Your task to perform on an android device: Open settings Image 0: 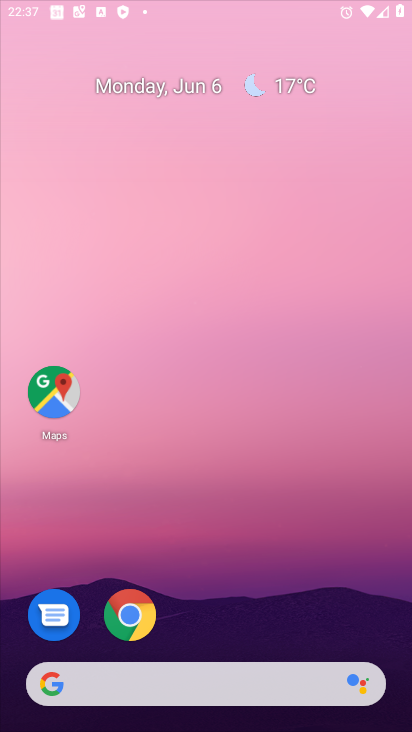
Step 0: drag from (17, 312) to (402, 296)
Your task to perform on an android device: Open settings Image 1: 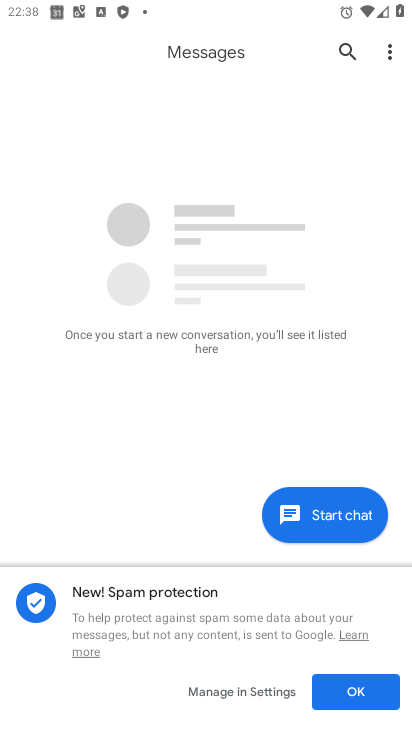
Step 1: press home button
Your task to perform on an android device: Open settings Image 2: 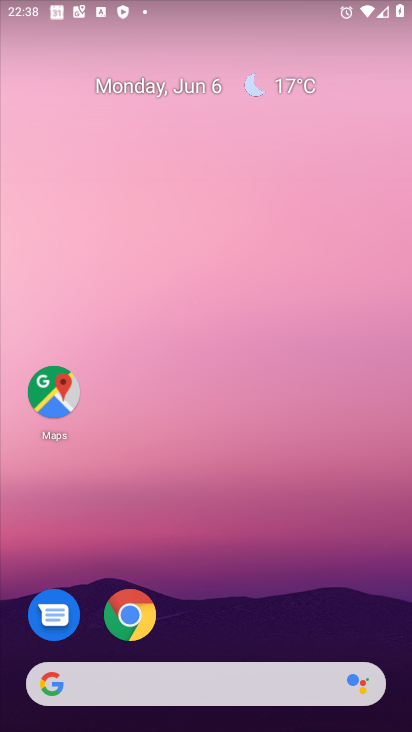
Step 2: drag from (402, 709) to (319, 52)
Your task to perform on an android device: Open settings Image 3: 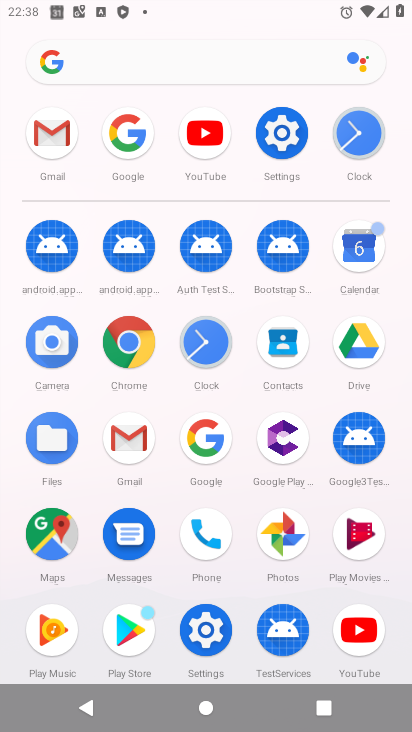
Step 3: click (266, 123)
Your task to perform on an android device: Open settings Image 4: 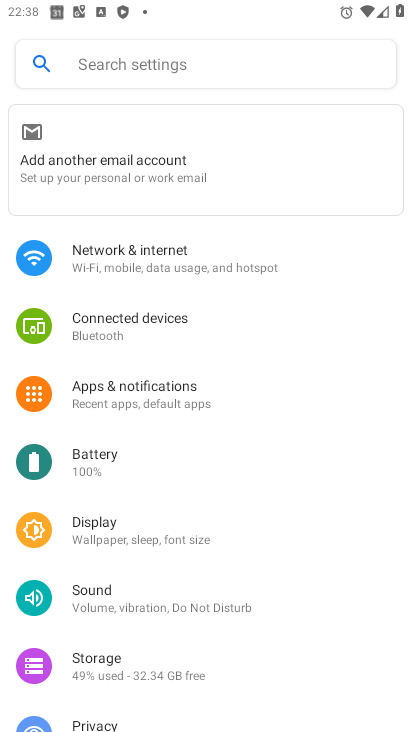
Step 4: task complete